Your task to perform on an android device: toggle translation in the chrome app Image 0: 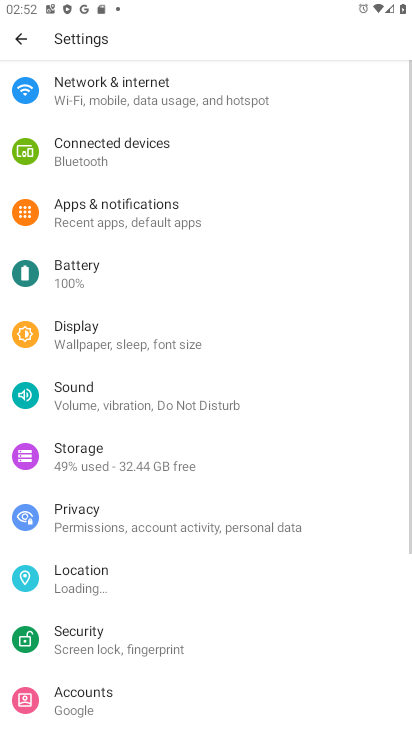
Step 0: press home button
Your task to perform on an android device: toggle translation in the chrome app Image 1: 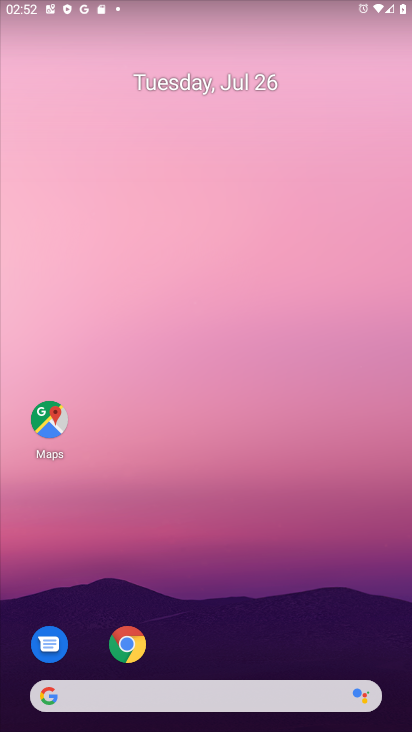
Step 1: click (131, 625)
Your task to perform on an android device: toggle translation in the chrome app Image 2: 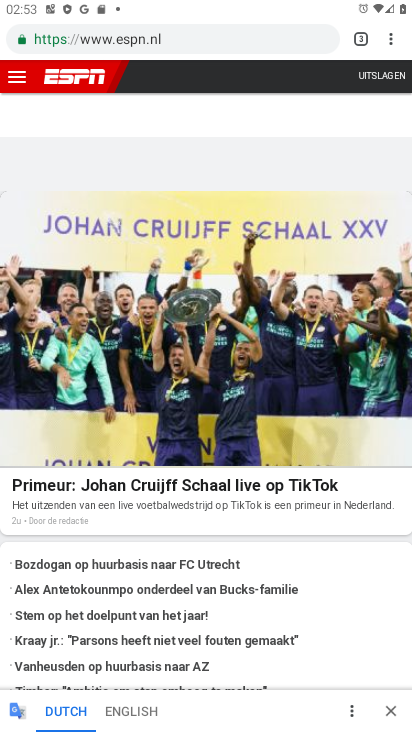
Step 2: drag from (382, 34) to (238, 466)
Your task to perform on an android device: toggle translation in the chrome app Image 3: 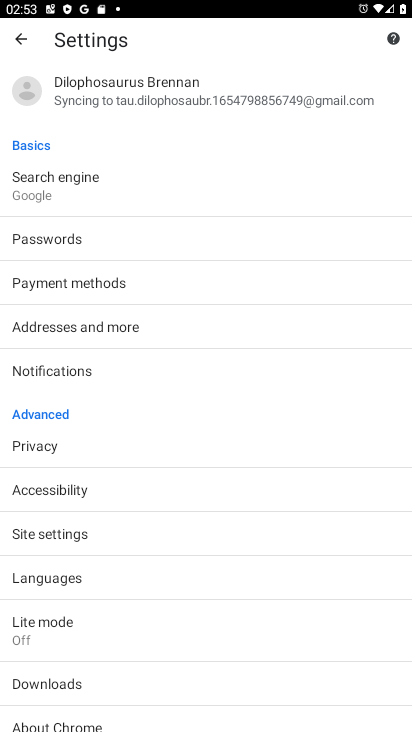
Step 3: drag from (83, 588) to (78, 437)
Your task to perform on an android device: toggle translation in the chrome app Image 4: 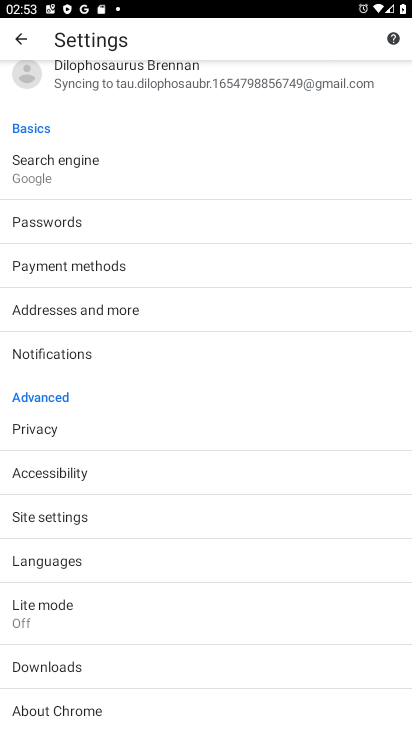
Step 4: click (74, 561)
Your task to perform on an android device: toggle translation in the chrome app Image 5: 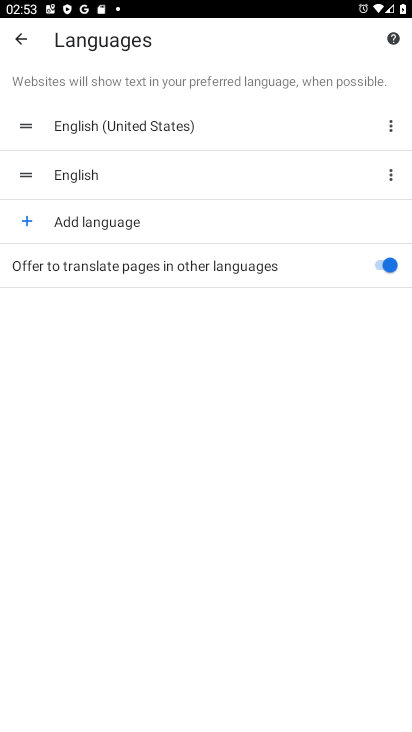
Step 5: click (389, 265)
Your task to perform on an android device: toggle translation in the chrome app Image 6: 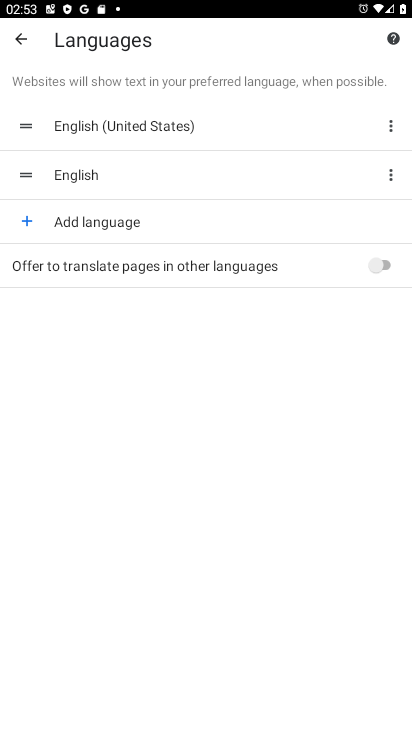
Step 6: task complete